Your task to perform on an android device: Open the phone app and click the voicemail tab. Image 0: 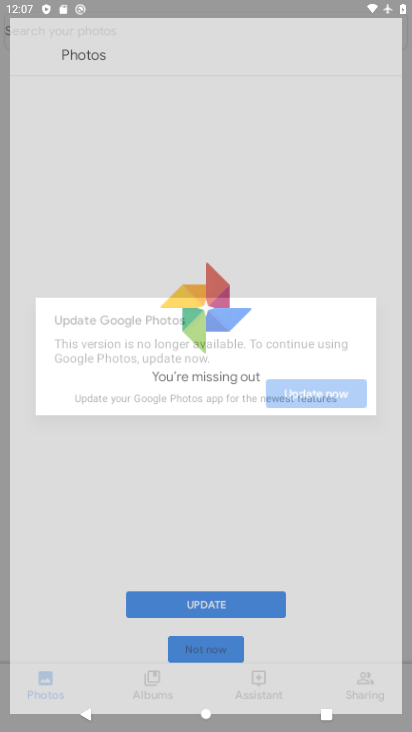
Step 0: press home button
Your task to perform on an android device: Open the phone app and click the voicemail tab. Image 1: 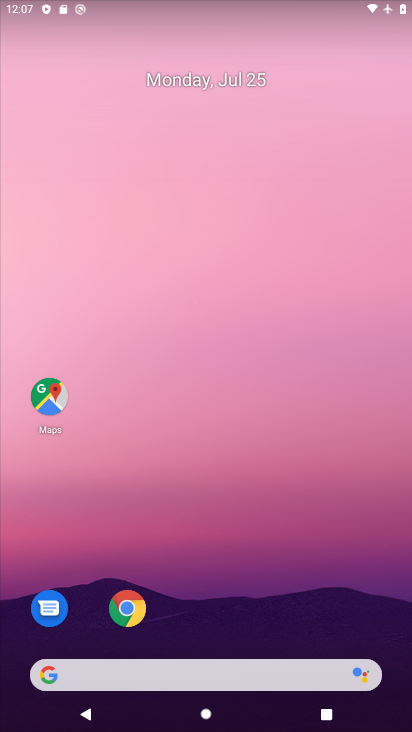
Step 1: drag from (254, 603) to (292, 11)
Your task to perform on an android device: Open the phone app and click the voicemail tab. Image 2: 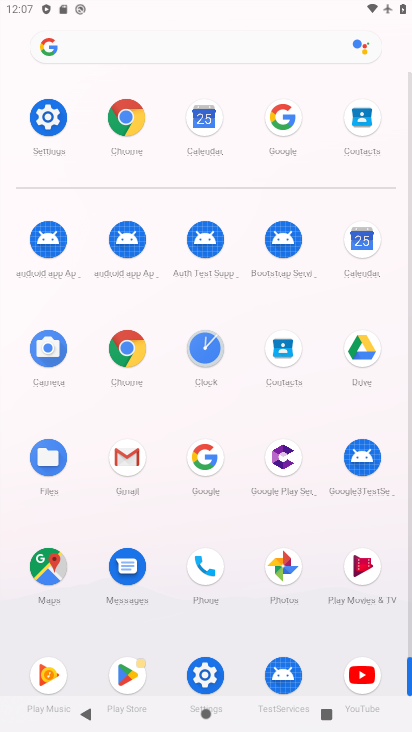
Step 2: click (200, 573)
Your task to perform on an android device: Open the phone app and click the voicemail tab. Image 3: 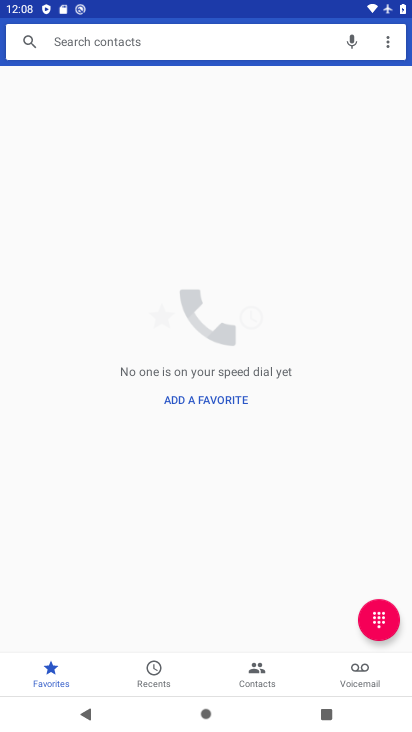
Step 3: click (345, 679)
Your task to perform on an android device: Open the phone app and click the voicemail tab. Image 4: 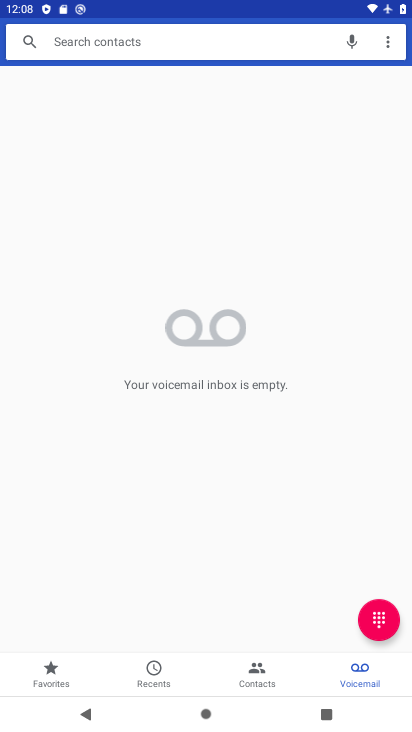
Step 4: task complete